Your task to perform on an android device: turn off notifications settings in the gmail app Image 0: 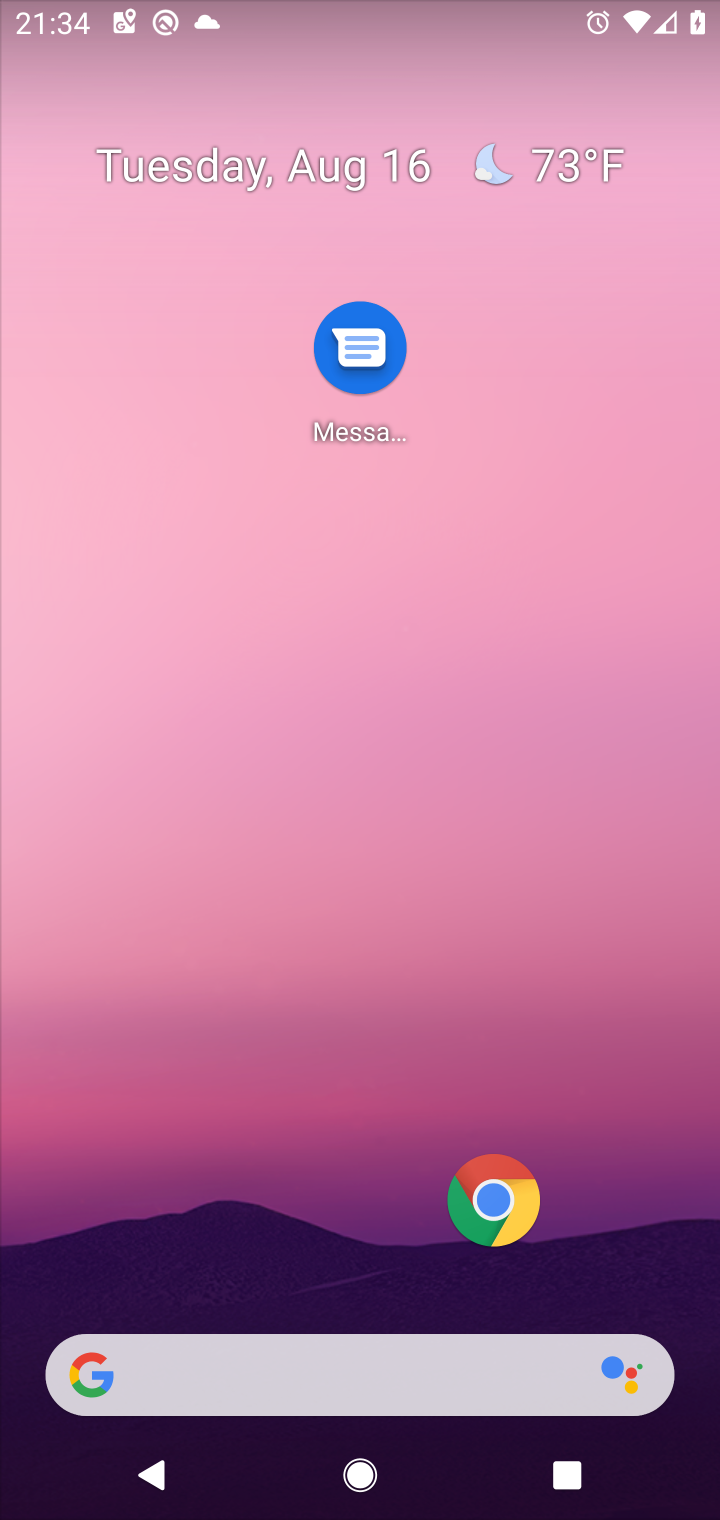
Step 0: drag from (118, 1374) to (394, 602)
Your task to perform on an android device: turn off notifications settings in the gmail app Image 1: 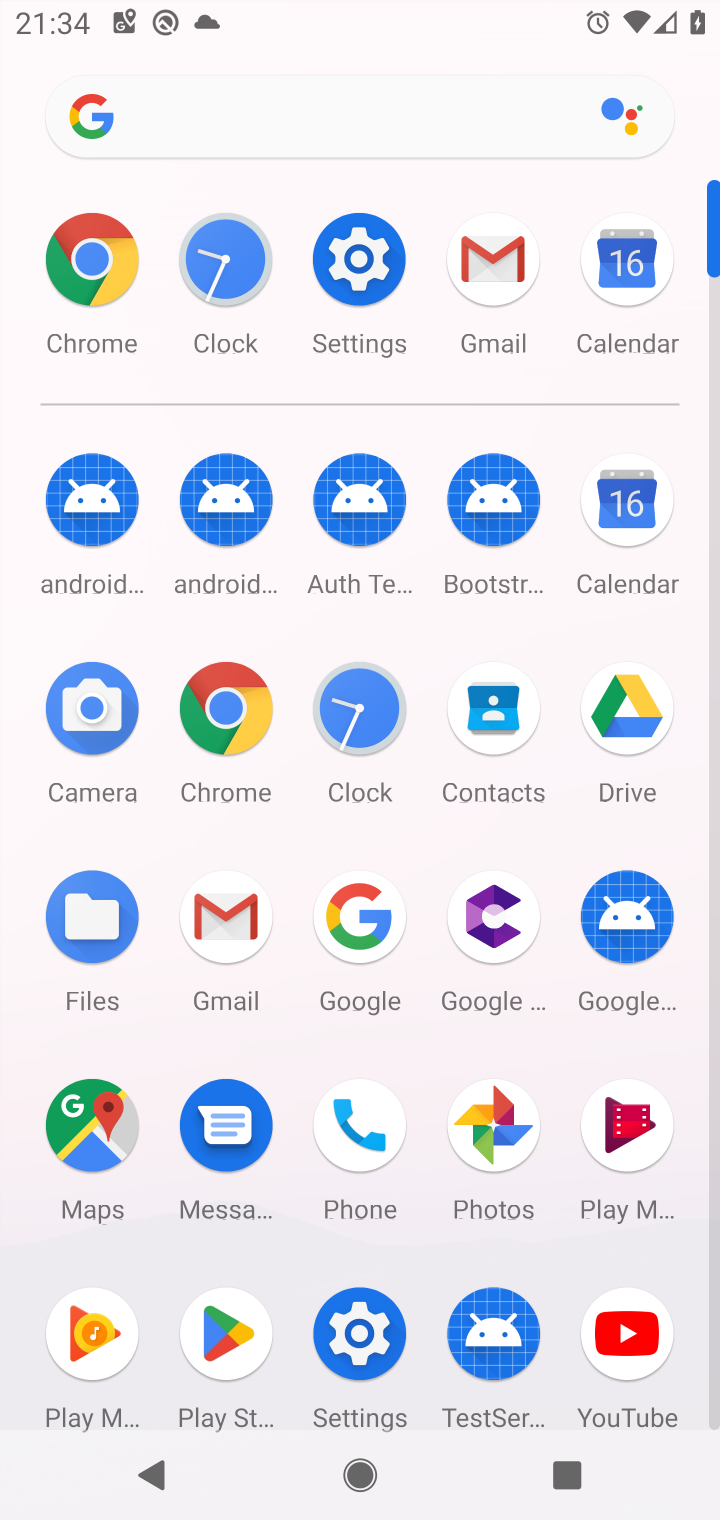
Step 1: click (232, 925)
Your task to perform on an android device: turn off notifications settings in the gmail app Image 2: 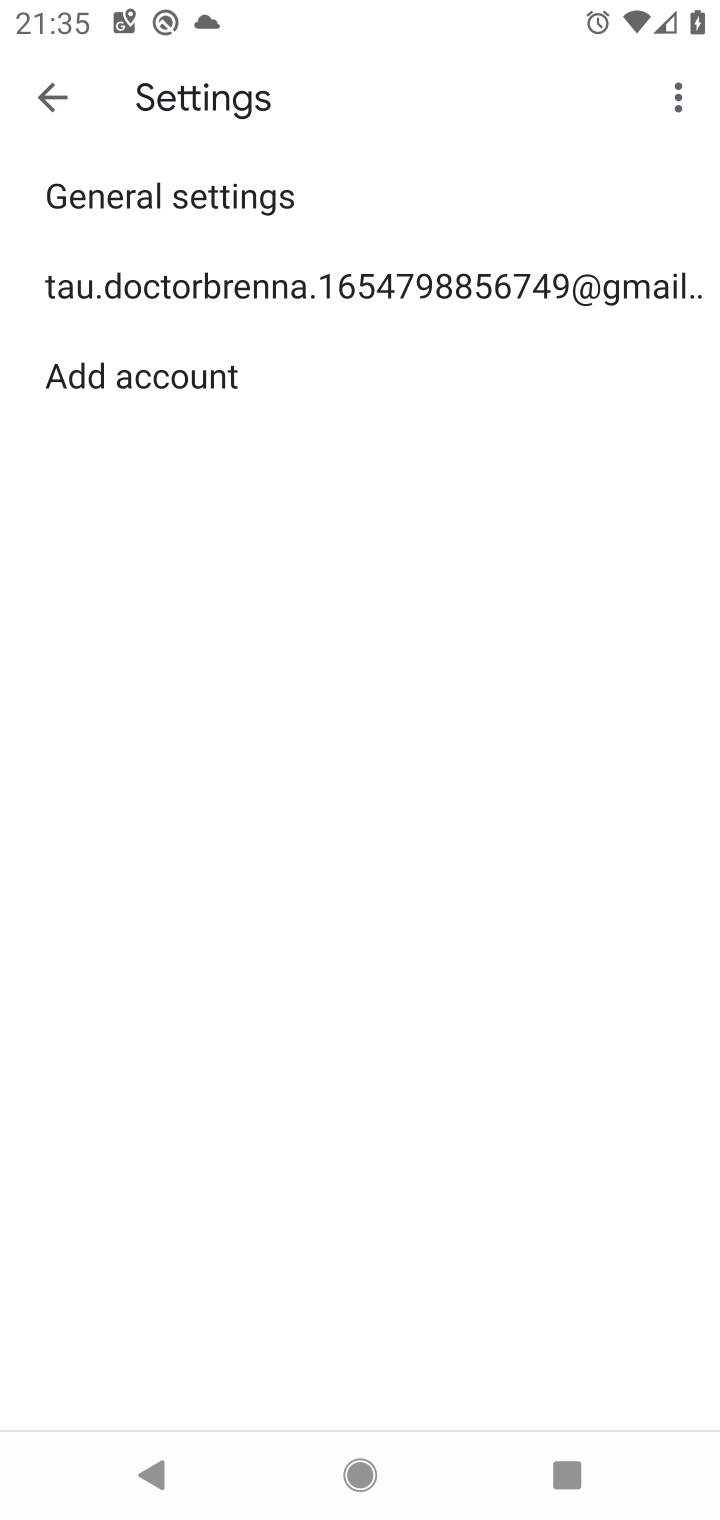
Step 2: click (213, 298)
Your task to perform on an android device: turn off notifications settings in the gmail app Image 3: 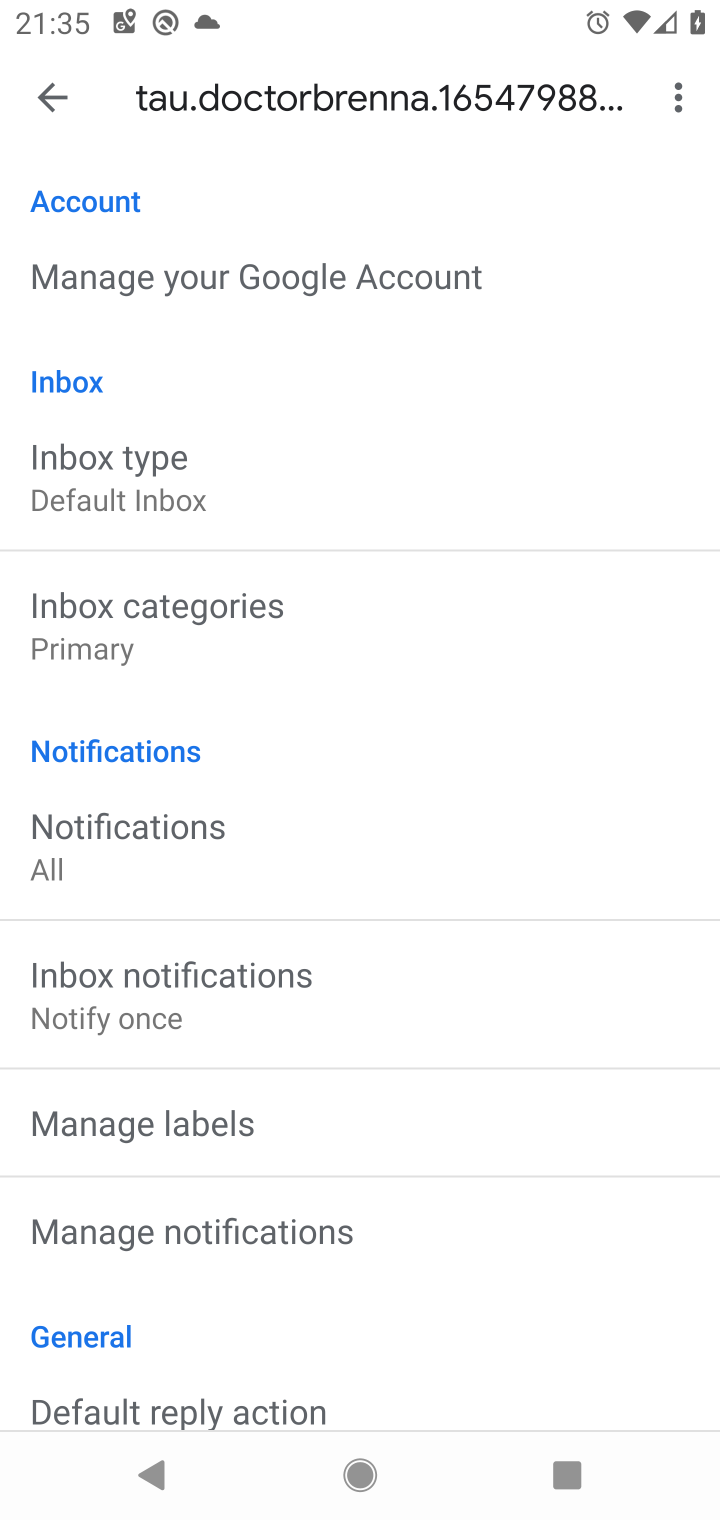
Step 3: click (199, 1247)
Your task to perform on an android device: turn off notifications settings in the gmail app Image 4: 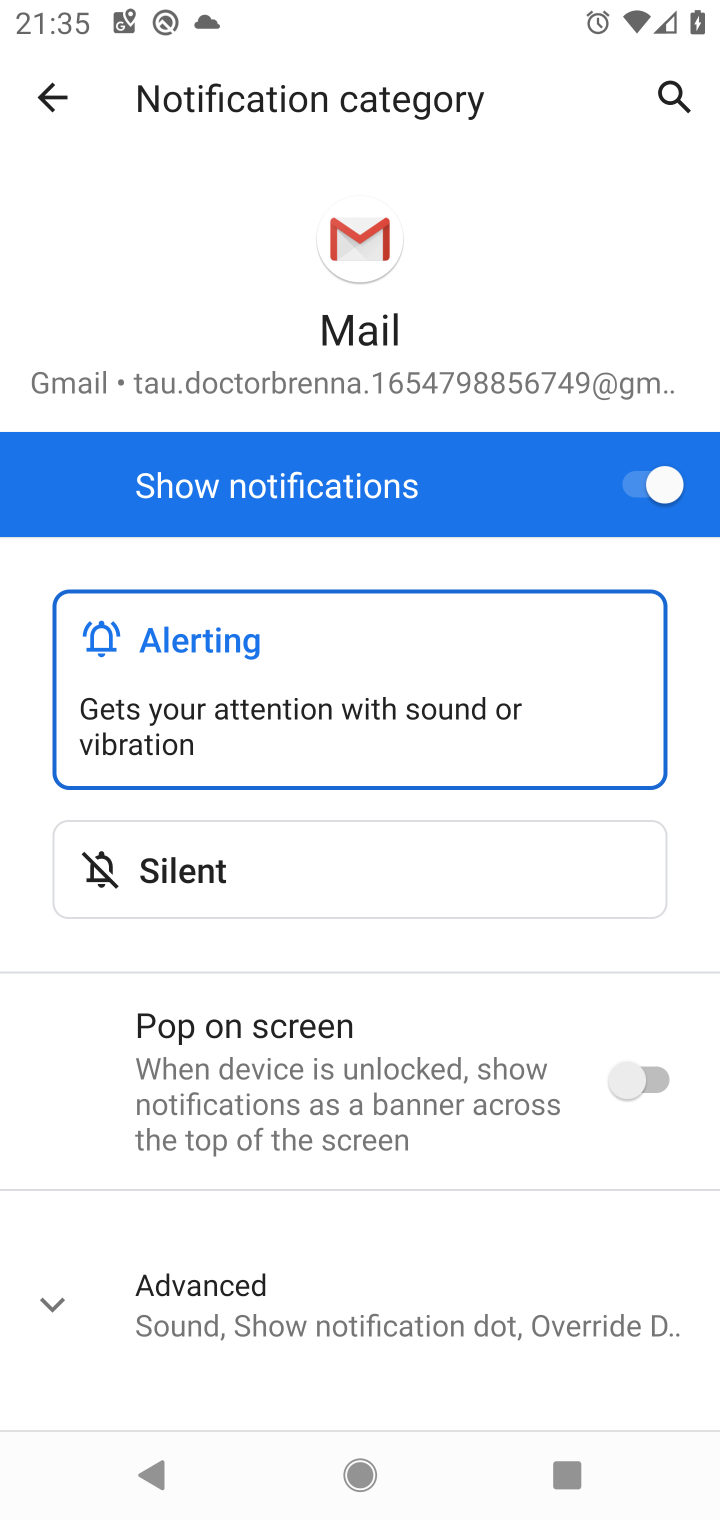
Step 4: click (664, 483)
Your task to perform on an android device: turn off notifications settings in the gmail app Image 5: 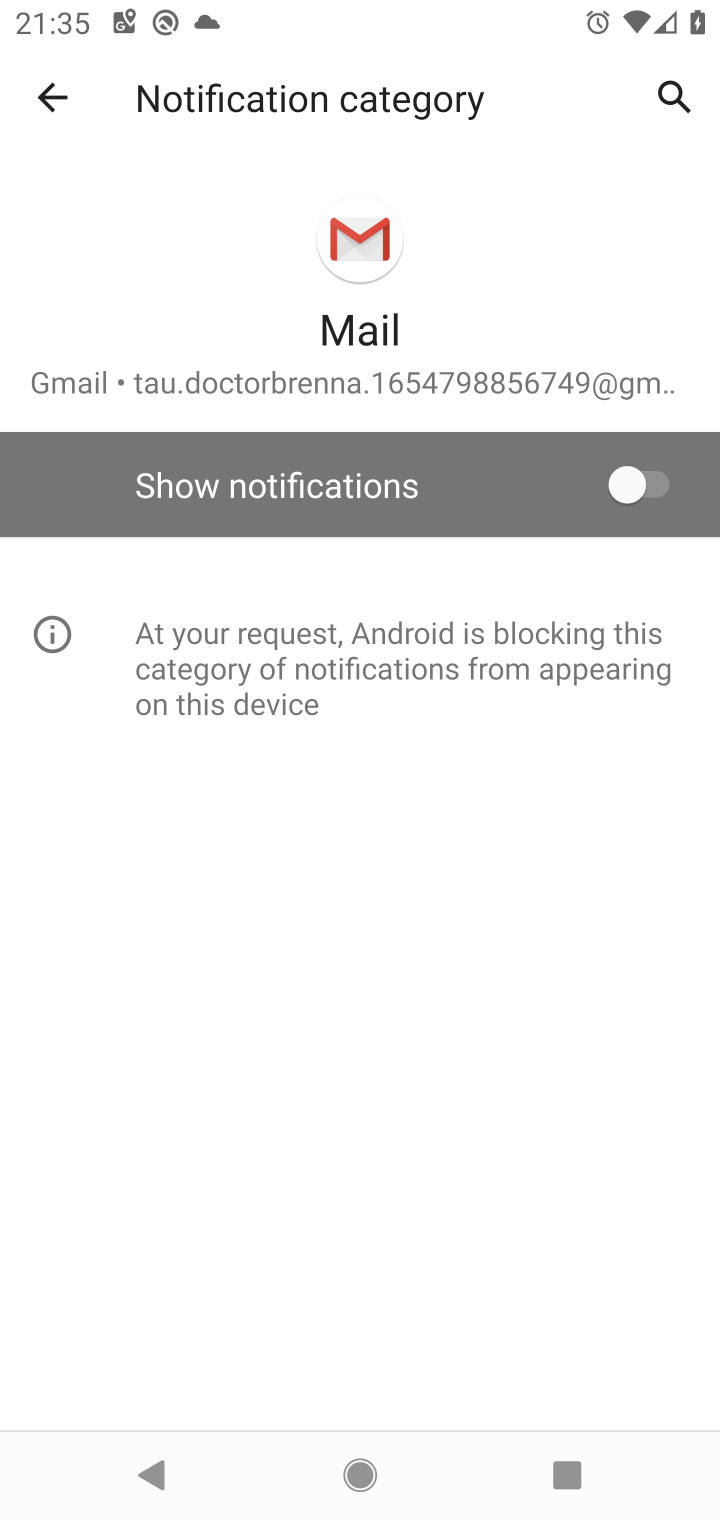
Step 5: task complete